Your task to perform on an android device: star an email in the gmail app Image 0: 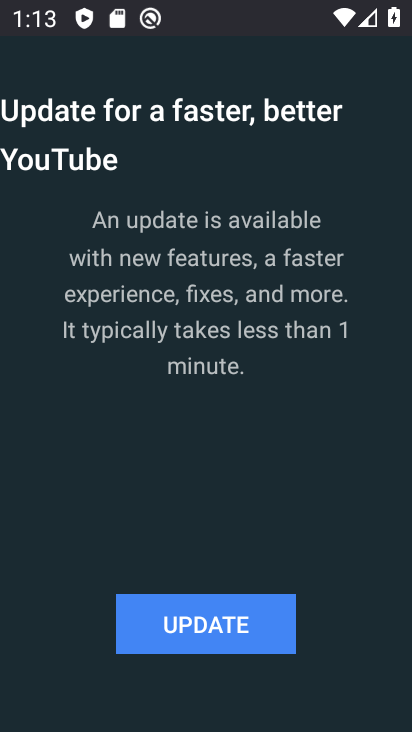
Step 0: press home button
Your task to perform on an android device: star an email in the gmail app Image 1: 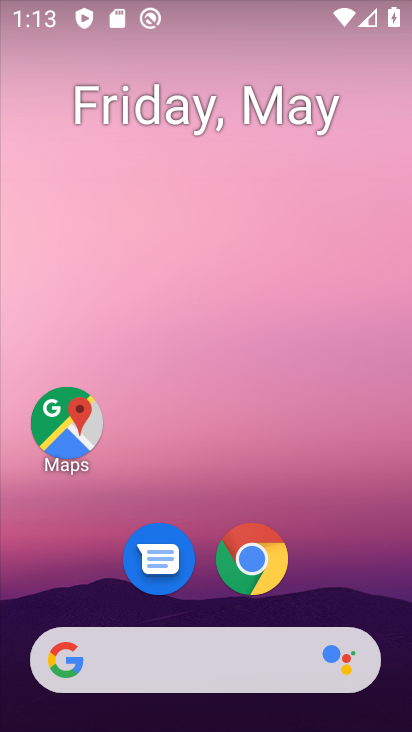
Step 1: drag from (378, 601) to (351, 190)
Your task to perform on an android device: star an email in the gmail app Image 2: 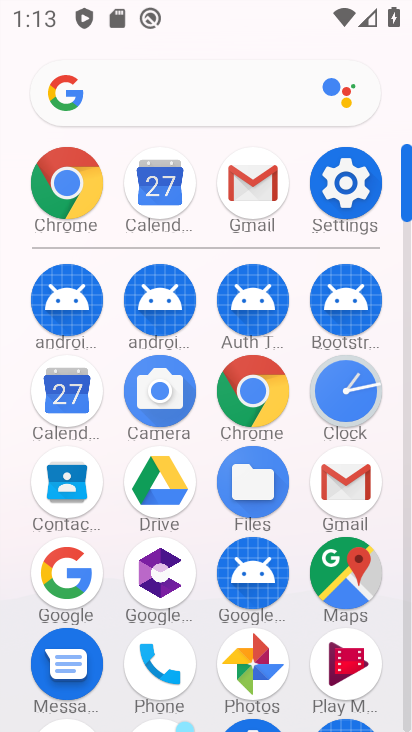
Step 2: drag from (298, 676) to (301, 334)
Your task to perform on an android device: star an email in the gmail app Image 3: 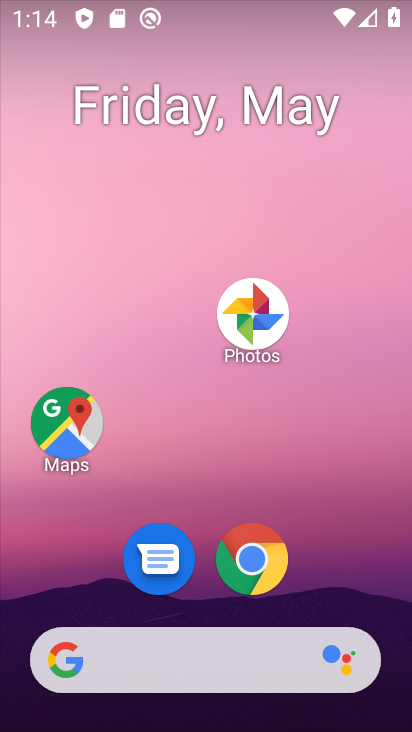
Step 3: drag from (341, 532) to (336, 142)
Your task to perform on an android device: star an email in the gmail app Image 4: 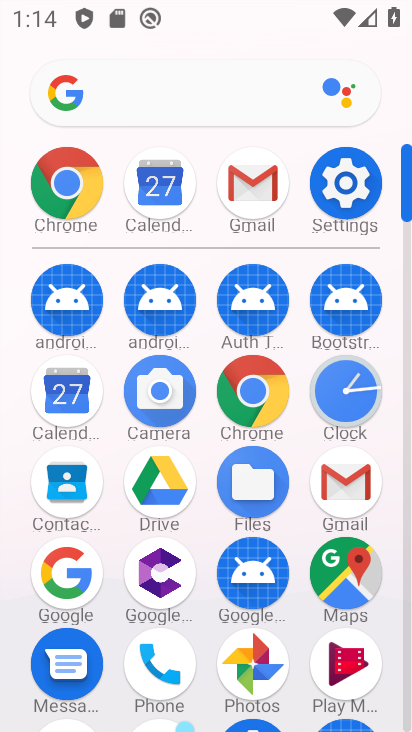
Step 4: click (342, 488)
Your task to perform on an android device: star an email in the gmail app Image 5: 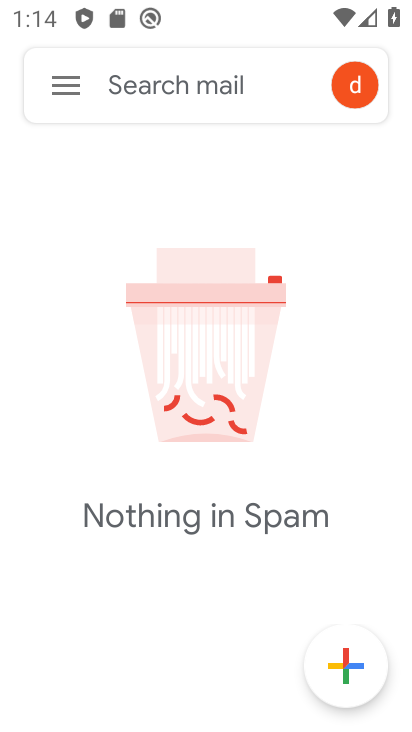
Step 5: click (48, 75)
Your task to perform on an android device: star an email in the gmail app Image 6: 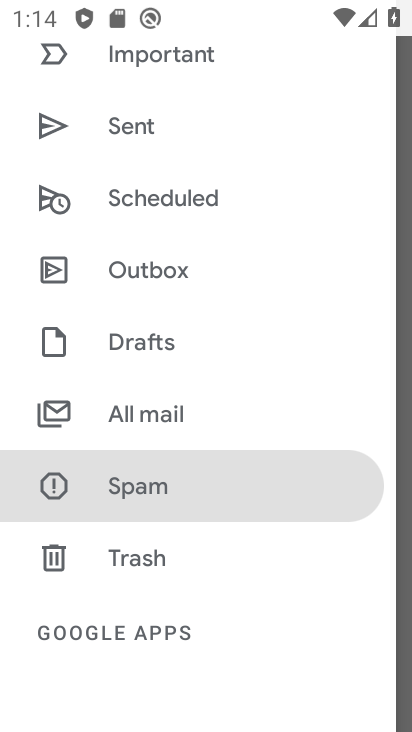
Step 6: click (195, 404)
Your task to perform on an android device: star an email in the gmail app Image 7: 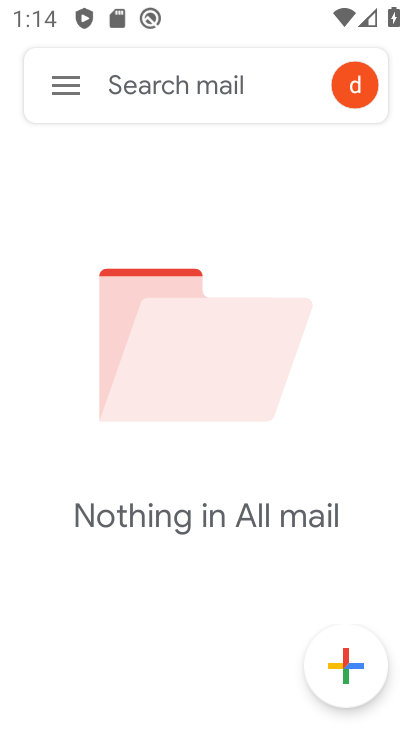
Step 7: task complete